Your task to perform on an android device: What's on my calendar today? Image 0: 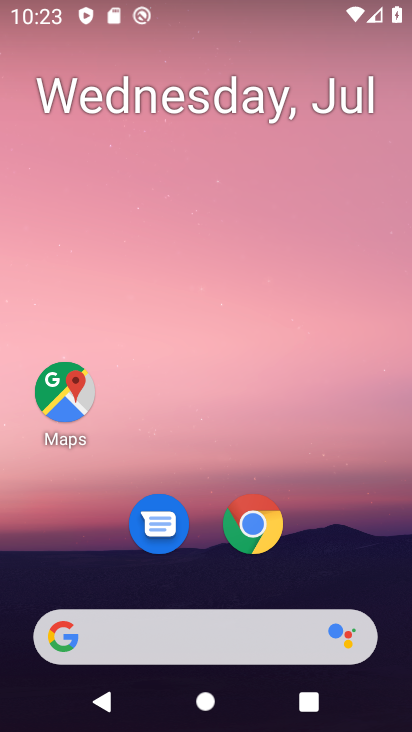
Step 0: press home button
Your task to perform on an android device: What's on my calendar today? Image 1: 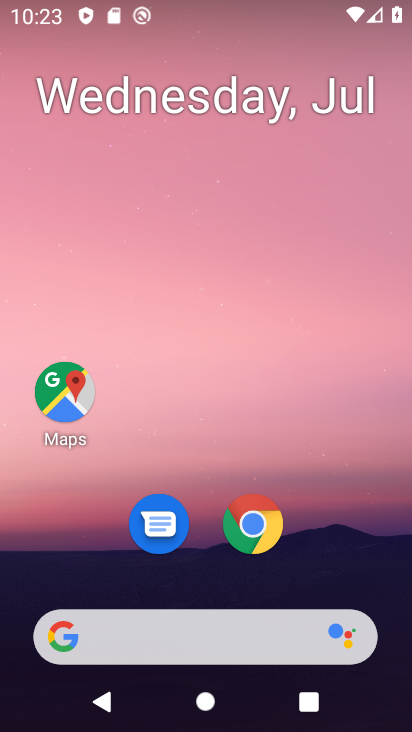
Step 1: drag from (224, 583) to (299, 136)
Your task to perform on an android device: What's on my calendar today? Image 2: 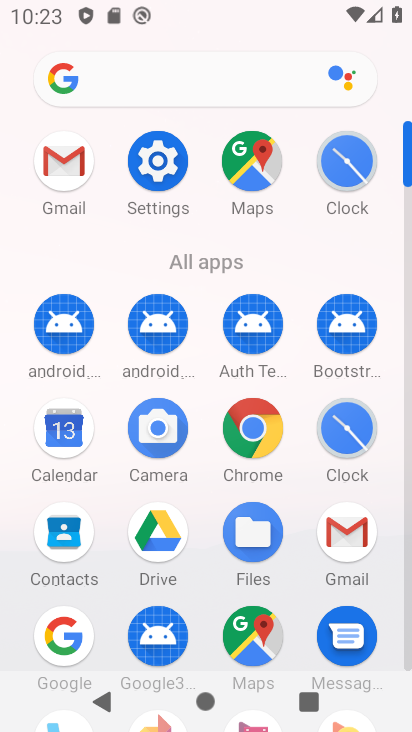
Step 2: click (53, 438)
Your task to perform on an android device: What's on my calendar today? Image 3: 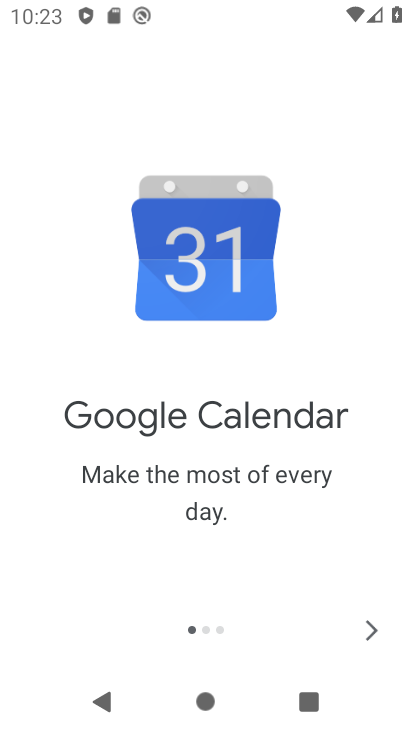
Step 3: click (370, 635)
Your task to perform on an android device: What's on my calendar today? Image 4: 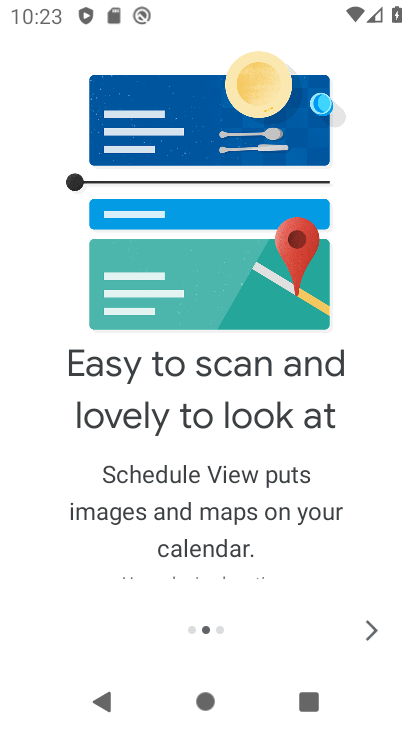
Step 4: click (370, 635)
Your task to perform on an android device: What's on my calendar today? Image 5: 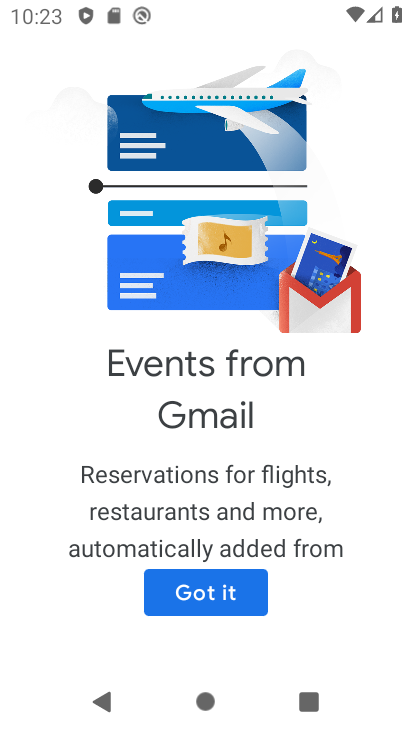
Step 5: click (231, 592)
Your task to perform on an android device: What's on my calendar today? Image 6: 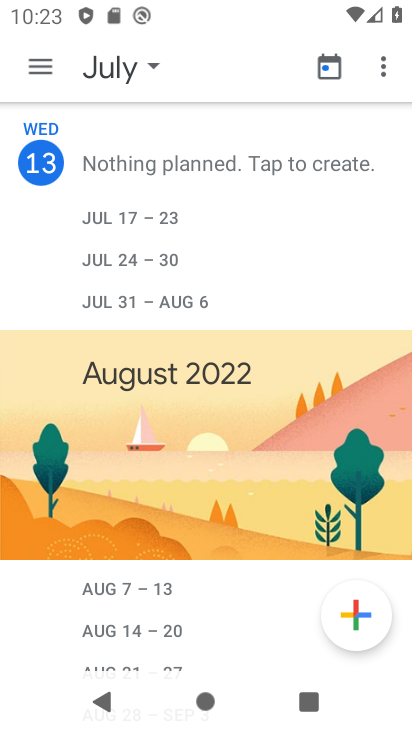
Step 6: click (117, 62)
Your task to perform on an android device: What's on my calendar today? Image 7: 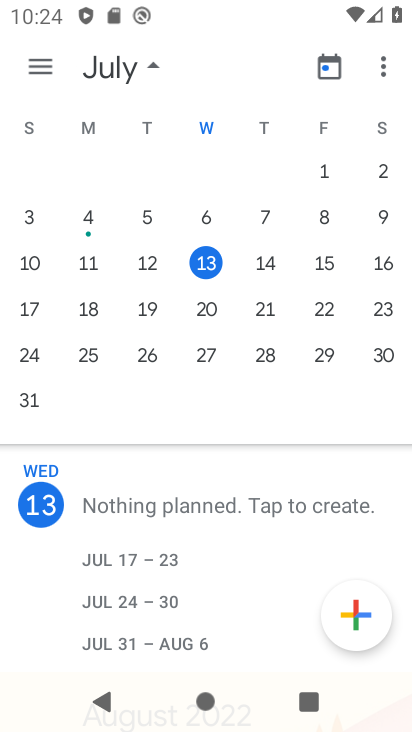
Step 7: click (210, 270)
Your task to perform on an android device: What's on my calendar today? Image 8: 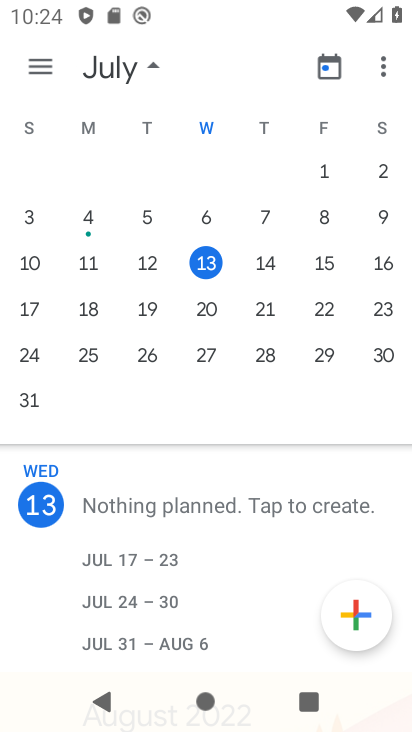
Step 8: click (42, 59)
Your task to perform on an android device: What's on my calendar today? Image 9: 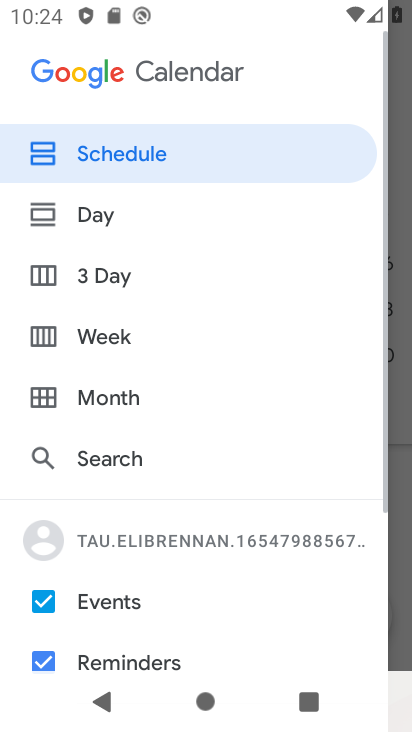
Step 9: click (115, 209)
Your task to perform on an android device: What's on my calendar today? Image 10: 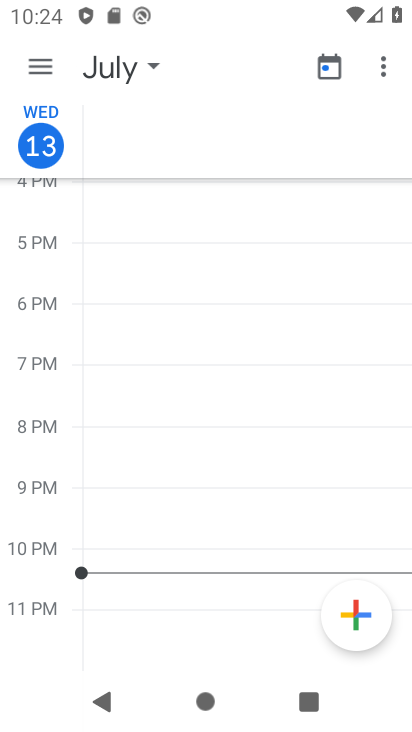
Step 10: click (48, 62)
Your task to perform on an android device: What's on my calendar today? Image 11: 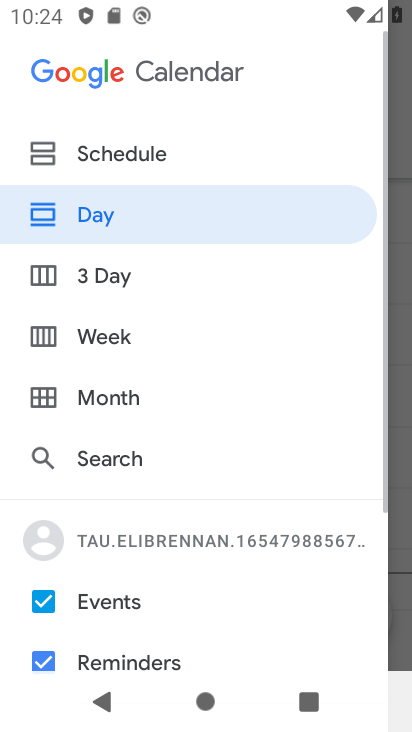
Step 11: click (128, 157)
Your task to perform on an android device: What's on my calendar today? Image 12: 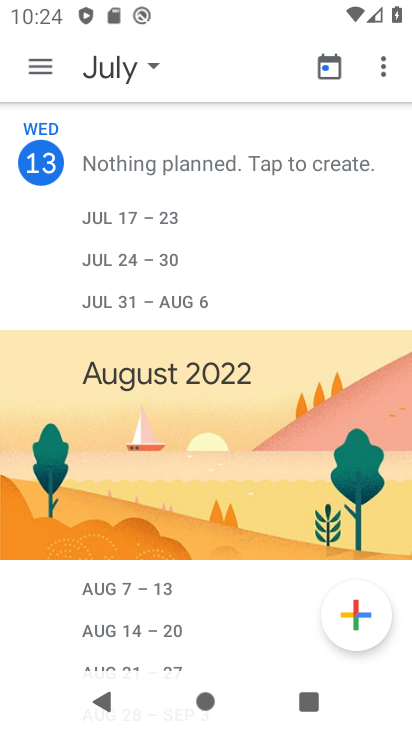
Step 12: task complete